Your task to perform on an android device: Open calendar and show me the fourth week of next month Image 0: 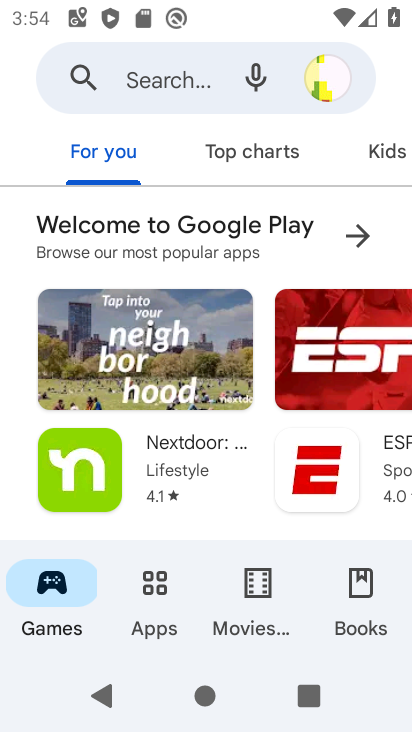
Step 0: drag from (178, 570) to (298, 80)
Your task to perform on an android device: Open calendar and show me the fourth week of next month Image 1: 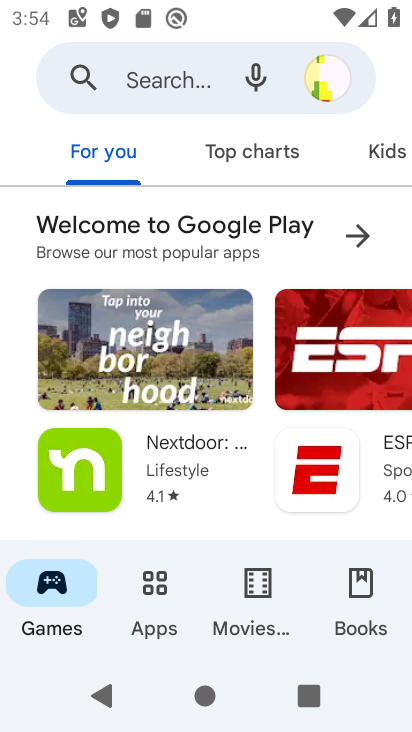
Step 1: press home button
Your task to perform on an android device: Open calendar and show me the fourth week of next month Image 2: 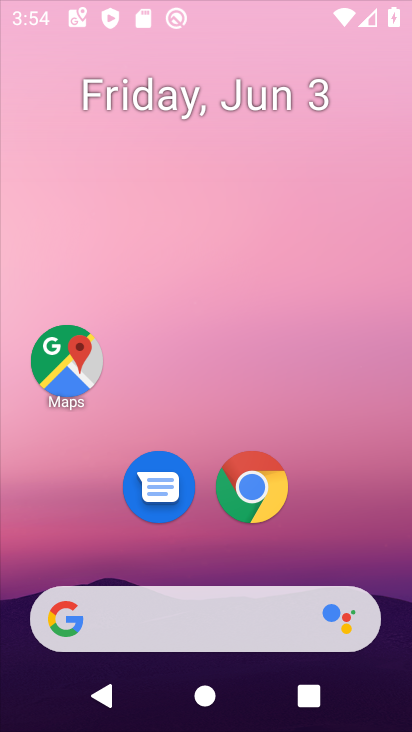
Step 2: drag from (231, 448) to (308, 32)
Your task to perform on an android device: Open calendar and show me the fourth week of next month Image 3: 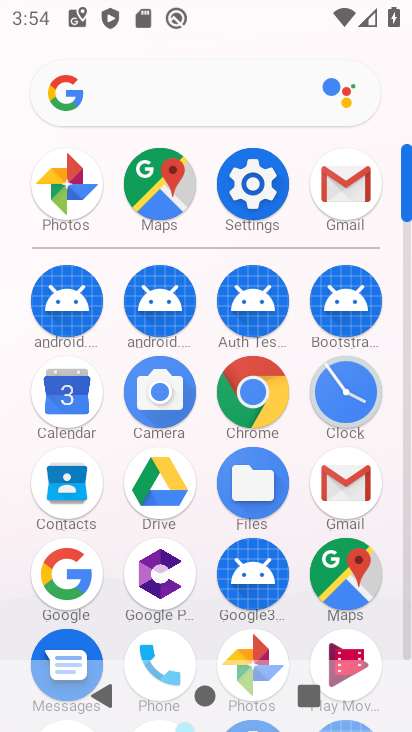
Step 3: click (71, 386)
Your task to perform on an android device: Open calendar and show me the fourth week of next month Image 4: 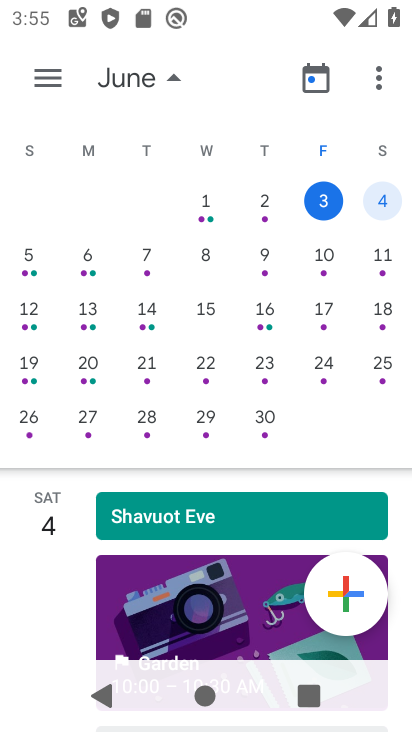
Step 4: drag from (342, 344) to (16, 376)
Your task to perform on an android device: Open calendar and show me the fourth week of next month Image 5: 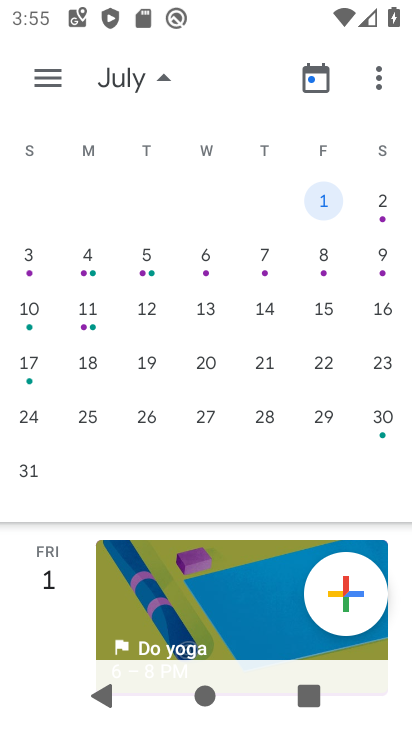
Step 5: click (264, 361)
Your task to perform on an android device: Open calendar and show me the fourth week of next month Image 6: 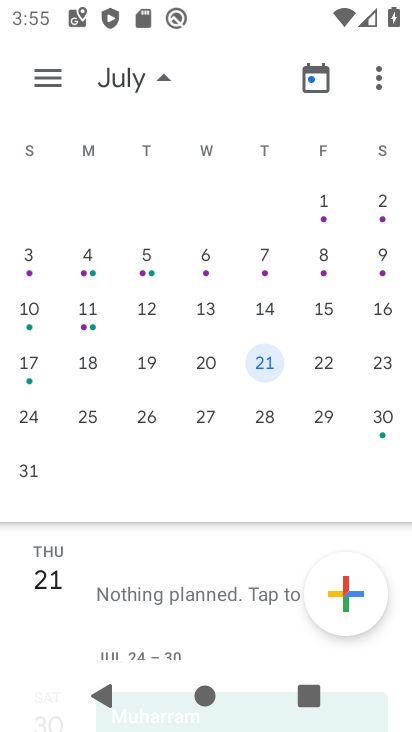
Step 6: task complete